Your task to perform on an android device: Search for seafood restaurants on Google Maps Image 0: 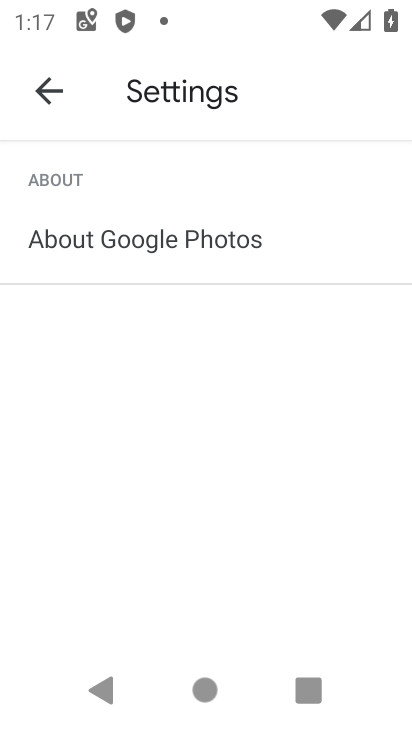
Step 0: press home button
Your task to perform on an android device: Search for seafood restaurants on Google Maps Image 1: 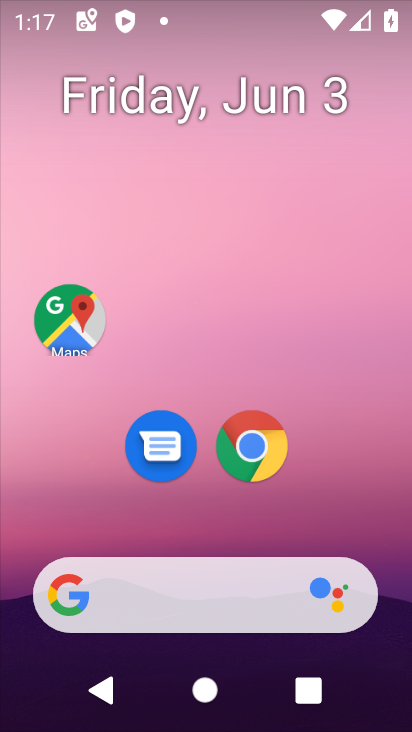
Step 1: click (65, 313)
Your task to perform on an android device: Search for seafood restaurants on Google Maps Image 2: 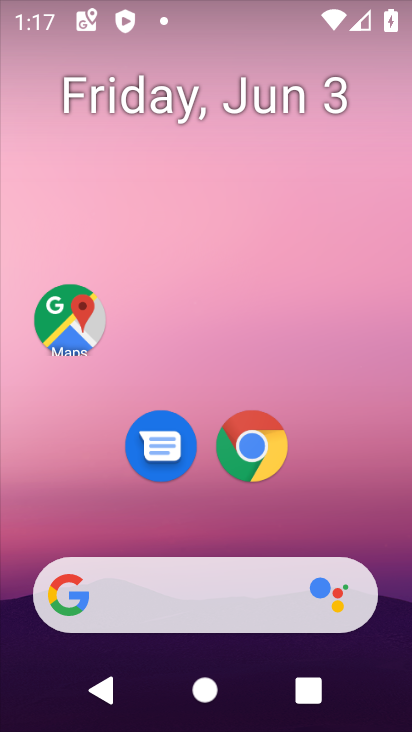
Step 2: click (65, 313)
Your task to perform on an android device: Search for seafood restaurants on Google Maps Image 3: 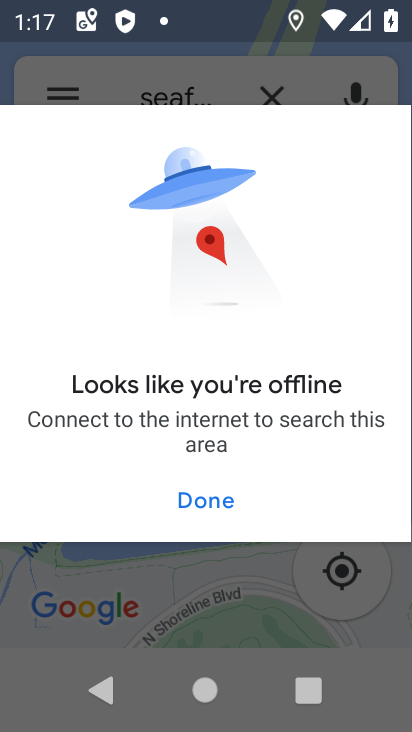
Step 3: click (205, 510)
Your task to perform on an android device: Search for seafood restaurants on Google Maps Image 4: 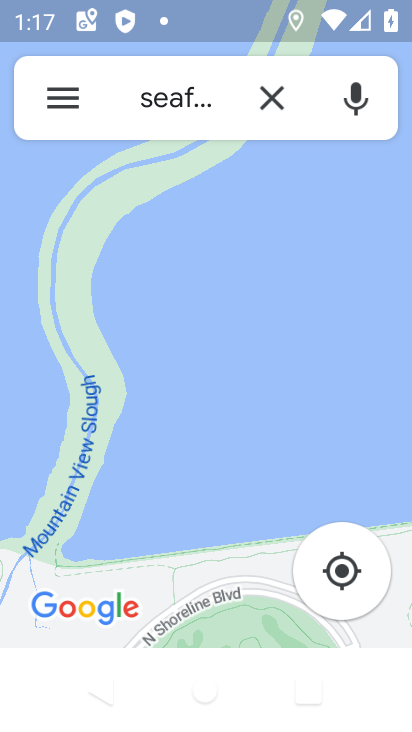
Step 4: task complete